Your task to perform on an android device: Is it going to rain this weekend? Image 0: 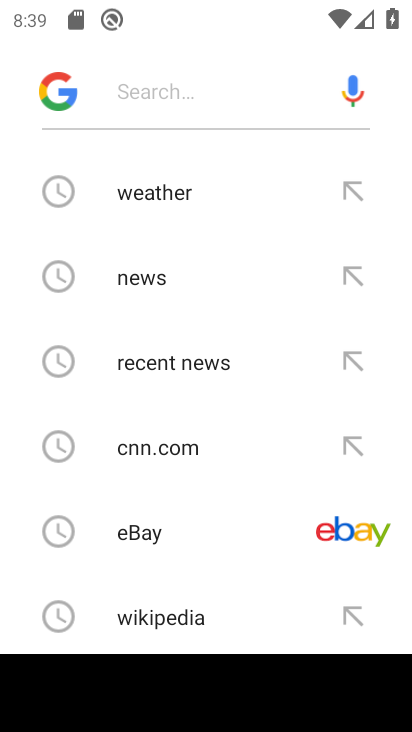
Step 0: press home button
Your task to perform on an android device: Is it going to rain this weekend? Image 1: 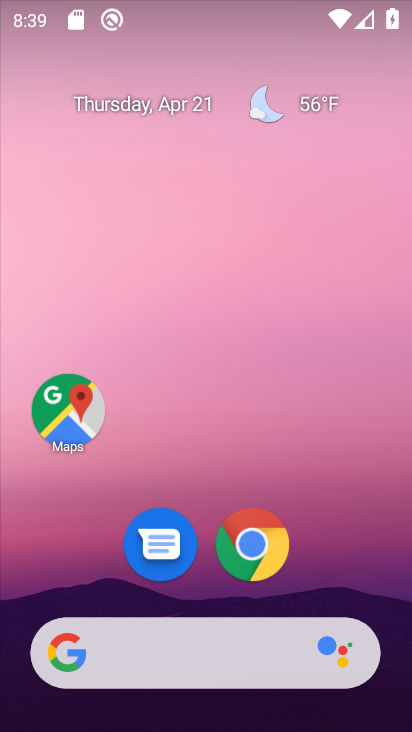
Step 1: click (261, 110)
Your task to perform on an android device: Is it going to rain this weekend? Image 2: 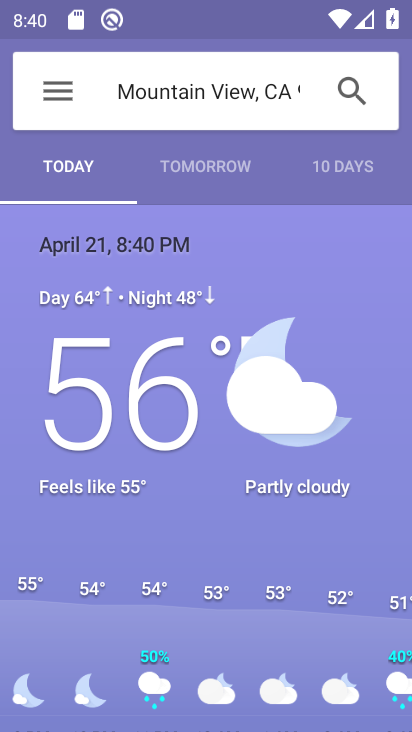
Step 2: click (344, 167)
Your task to perform on an android device: Is it going to rain this weekend? Image 3: 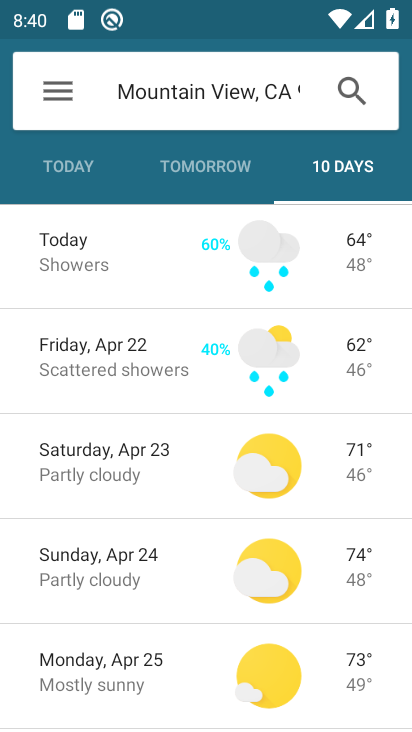
Step 3: click (133, 457)
Your task to perform on an android device: Is it going to rain this weekend? Image 4: 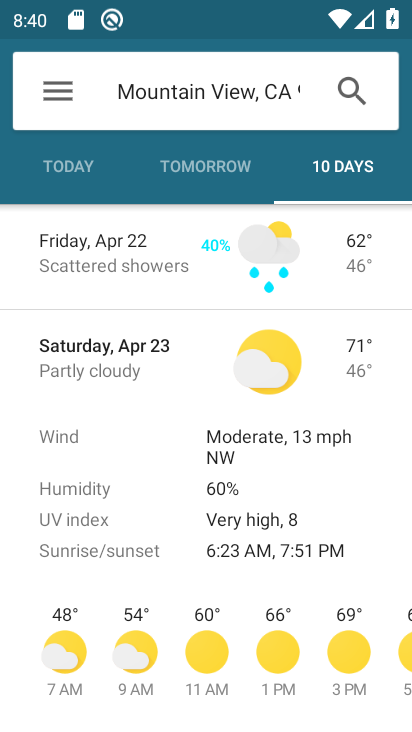
Step 4: task complete